Your task to perform on an android device: see creations saved in the google photos Image 0: 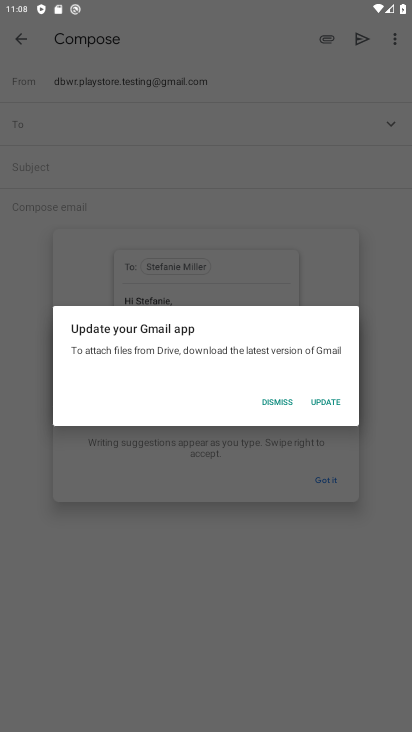
Step 0: press home button
Your task to perform on an android device: see creations saved in the google photos Image 1: 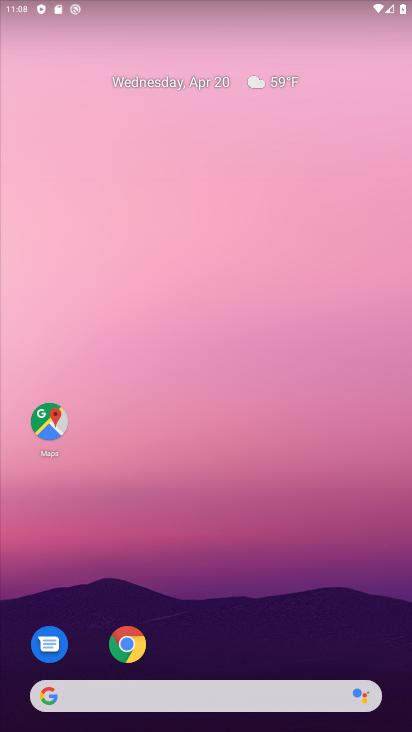
Step 1: drag from (272, 625) to (241, 308)
Your task to perform on an android device: see creations saved in the google photos Image 2: 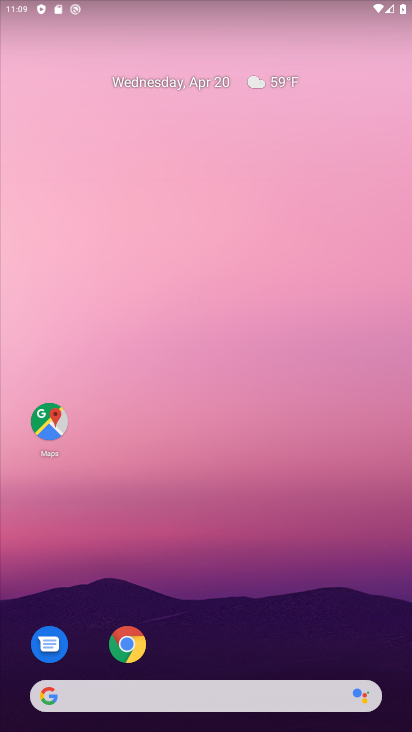
Step 2: drag from (279, 646) to (251, 191)
Your task to perform on an android device: see creations saved in the google photos Image 3: 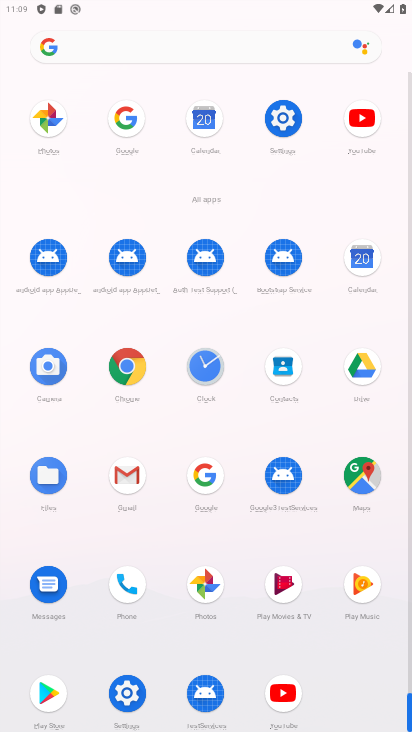
Step 3: click (204, 572)
Your task to perform on an android device: see creations saved in the google photos Image 4: 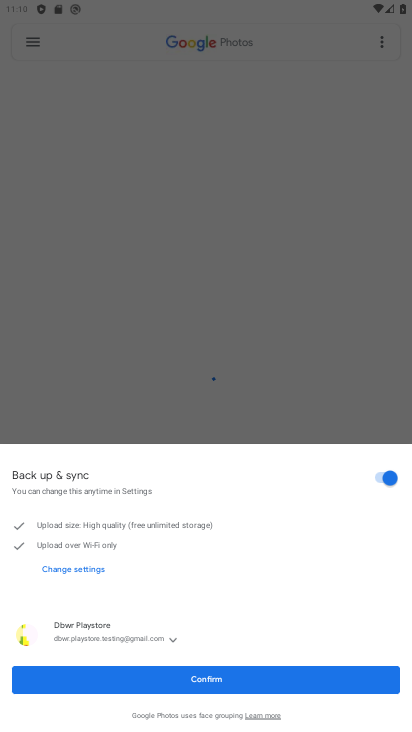
Step 4: click (198, 676)
Your task to perform on an android device: see creations saved in the google photos Image 5: 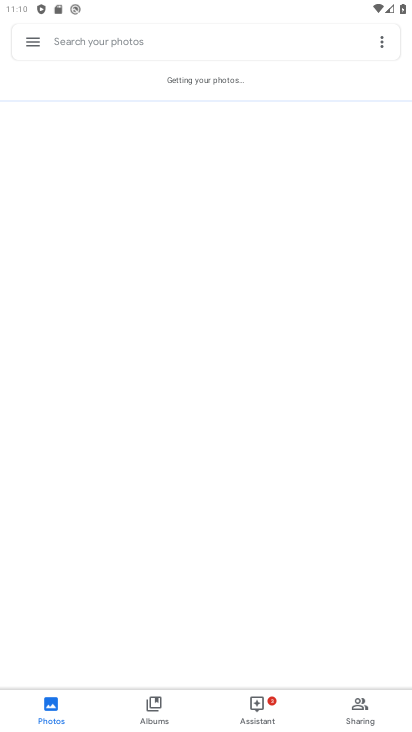
Step 5: click (175, 35)
Your task to perform on an android device: see creations saved in the google photos Image 6: 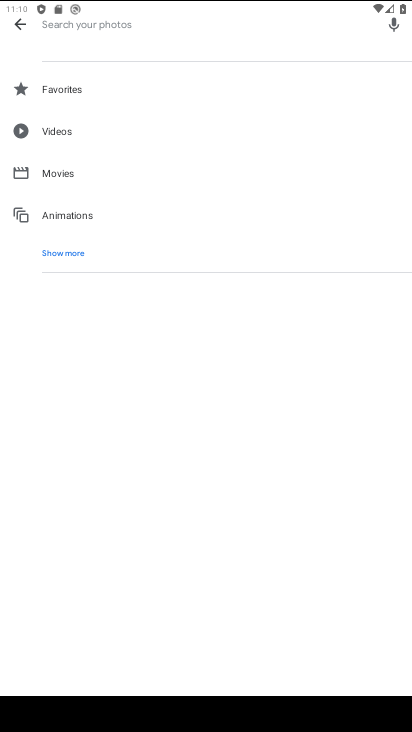
Step 6: click (68, 251)
Your task to perform on an android device: see creations saved in the google photos Image 7: 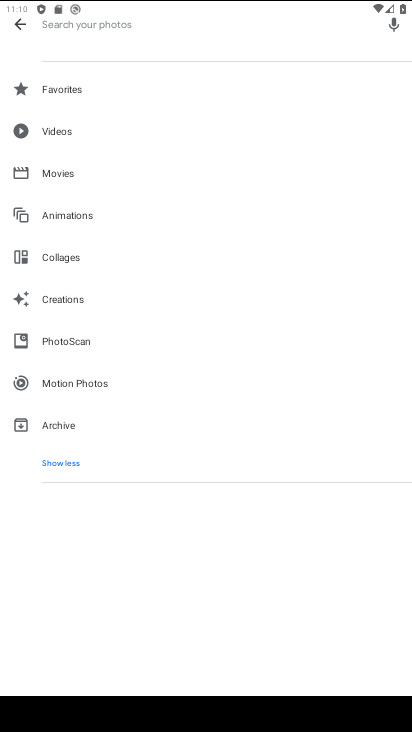
Step 7: click (78, 301)
Your task to perform on an android device: see creations saved in the google photos Image 8: 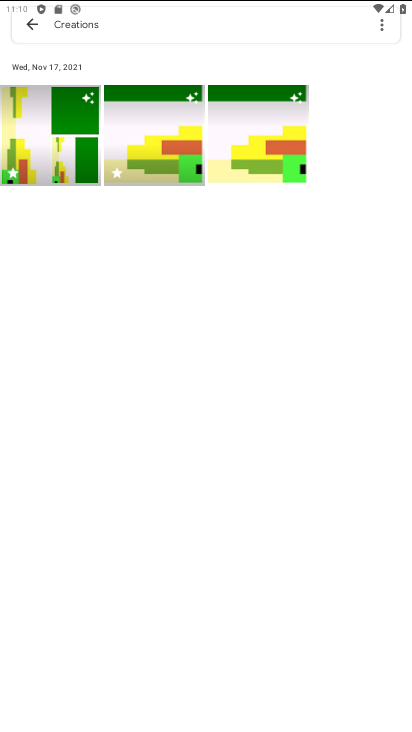
Step 8: task complete